Your task to perform on an android device: Go to network settings Image 0: 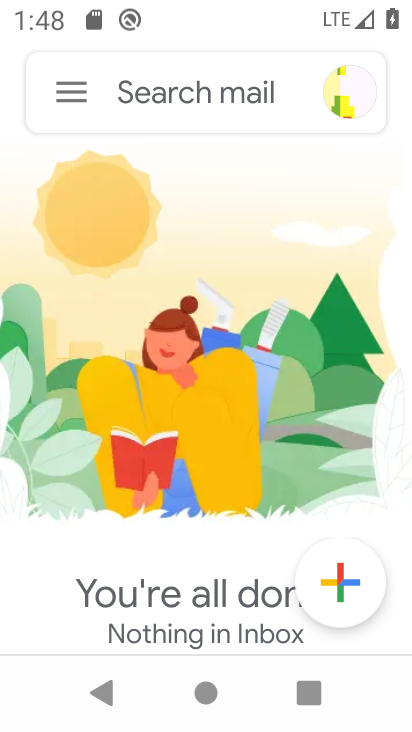
Step 0: press home button
Your task to perform on an android device: Go to network settings Image 1: 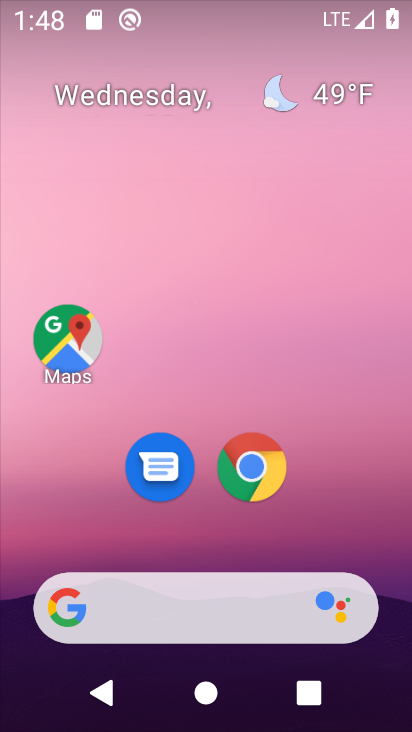
Step 1: drag from (389, 587) to (298, 172)
Your task to perform on an android device: Go to network settings Image 2: 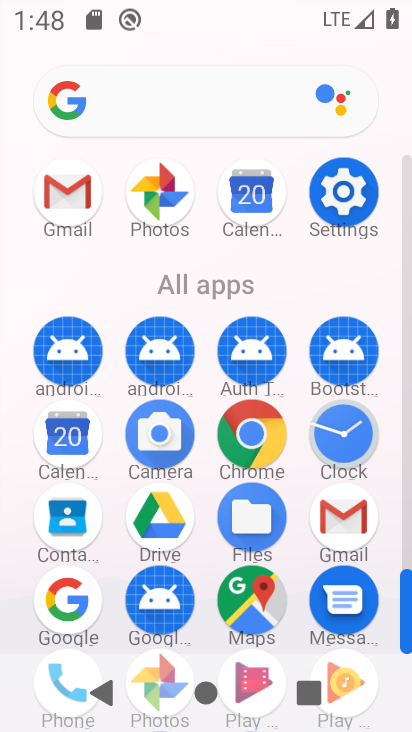
Step 2: drag from (405, 549) to (404, 505)
Your task to perform on an android device: Go to network settings Image 3: 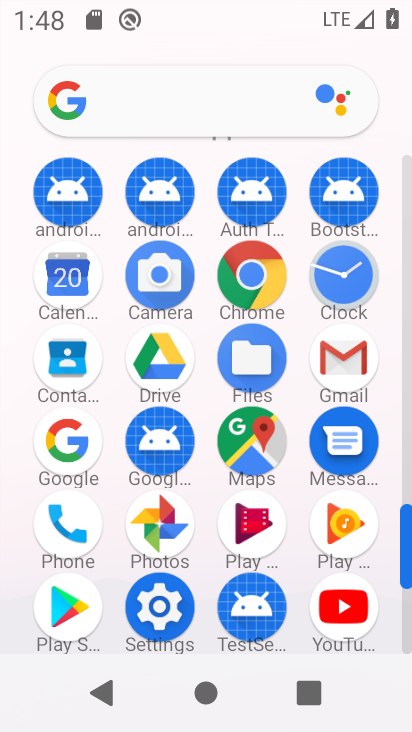
Step 3: click (159, 608)
Your task to perform on an android device: Go to network settings Image 4: 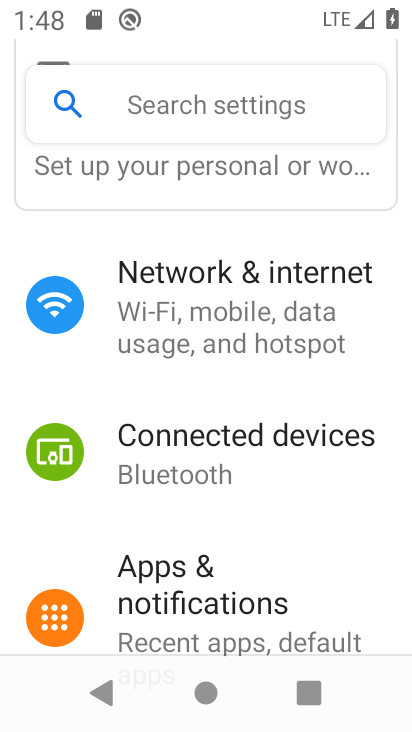
Step 4: click (171, 302)
Your task to perform on an android device: Go to network settings Image 5: 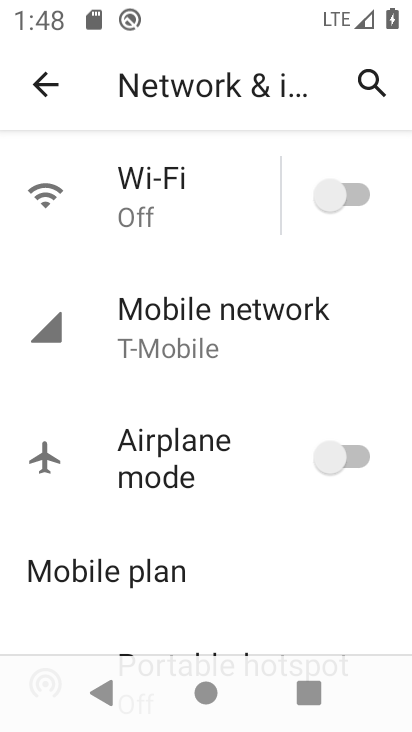
Step 5: drag from (216, 521) to (210, 190)
Your task to perform on an android device: Go to network settings Image 6: 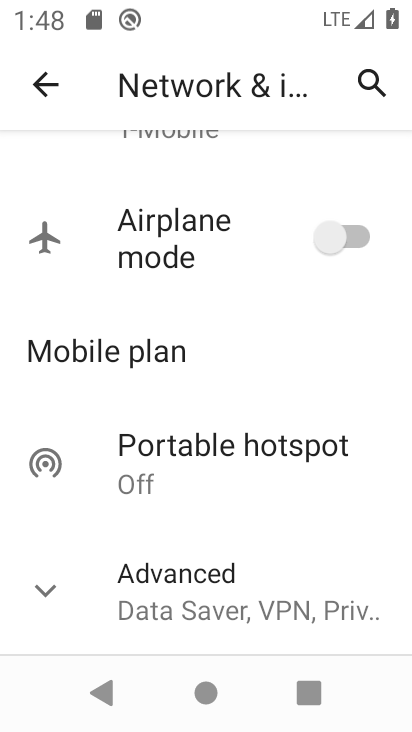
Step 6: click (39, 597)
Your task to perform on an android device: Go to network settings Image 7: 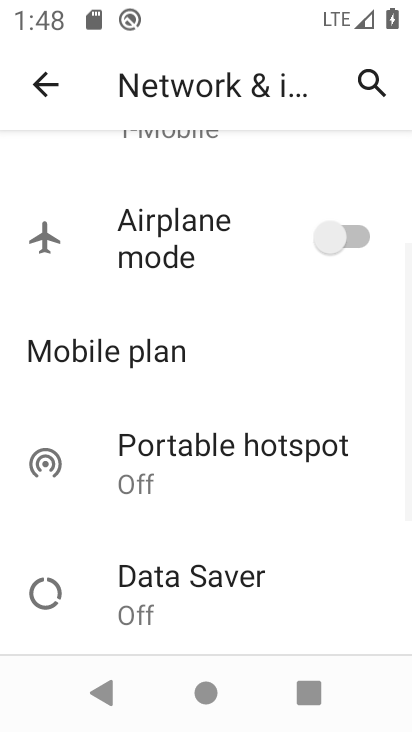
Step 7: task complete